Your task to perform on an android device: open a bookmark in the chrome app Image 0: 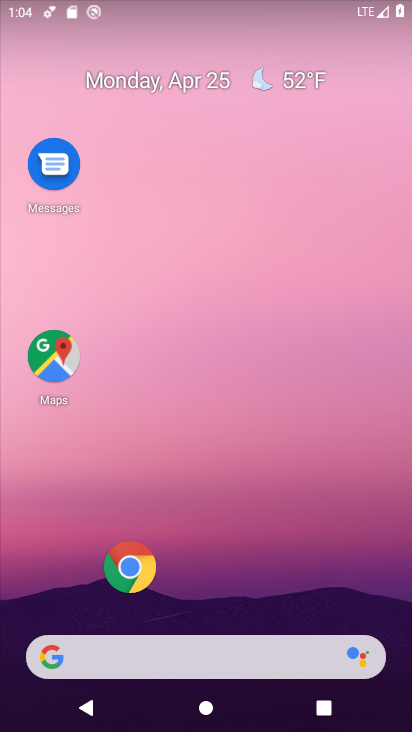
Step 0: drag from (187, 534) to (338, 15)
Your task to perform on an android device: open a bookmark in the chrome app Image 1: 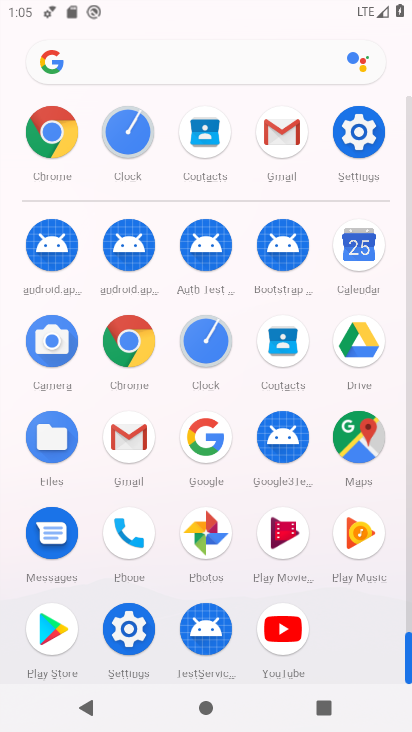
Step 1: click (50, 144)
Your task to perform on an android device: open a bookmark in the chrome app Image 2: 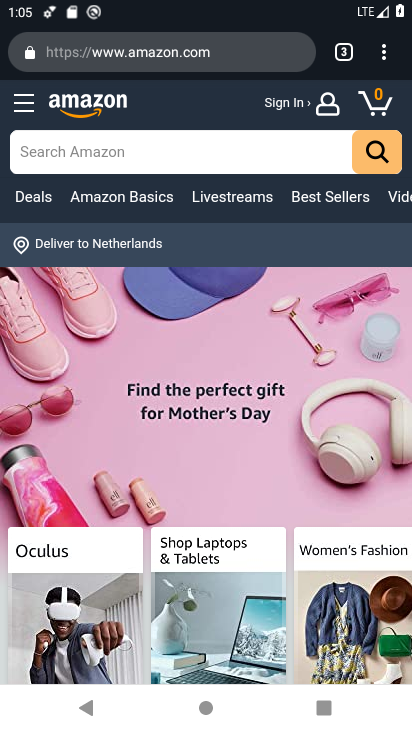
Step 2: click (388, 58)
Your task to perform on an android device: open a bookmark in the chrome app Image 3: 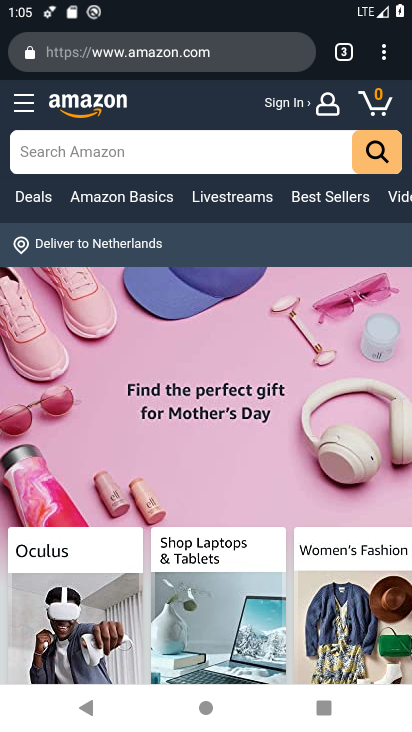
Step 3: click (388, 58)
Your task to perform on an android device: open a bookmark in the chrome app Image 4: 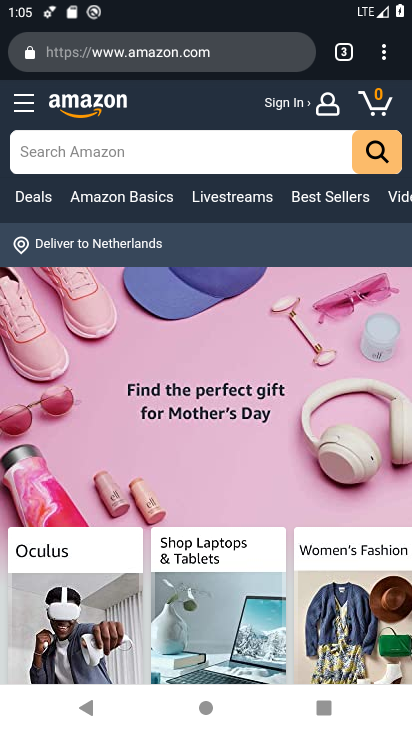
Step 4: click (388, 58)
Your task to perform on an android device: open a bookmark in the chrome app Image 5: 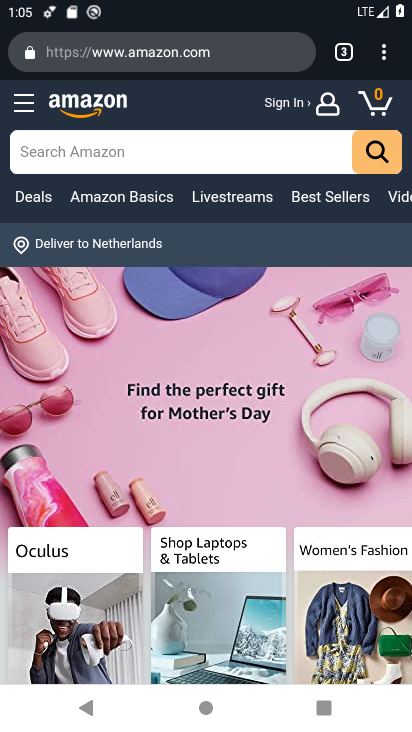
Step 5: click (388, 58)
Your task to perform on an android device: open a bookmark in the chrome app Image 6: 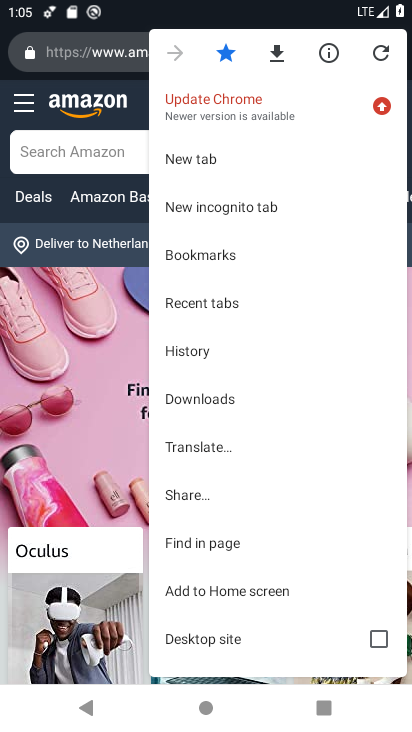
Step 6: click (227, 249)
Your task to perform on an android device: open a bookmark in the chrome app Image 7: 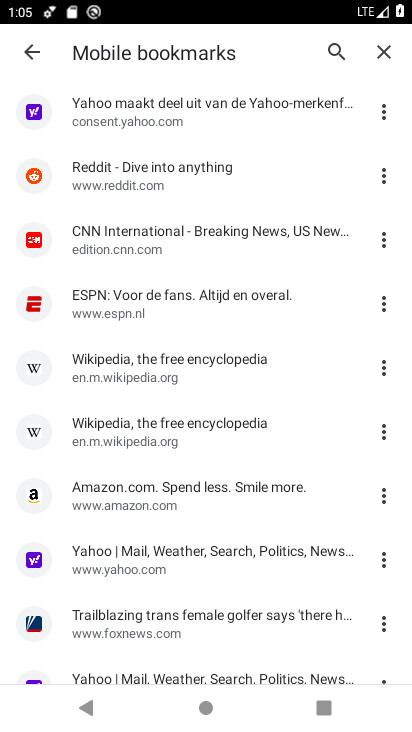
Step 7: click (130, 568)
Your task to perform on an android device: open a bookmark in the chrome app Image 8: 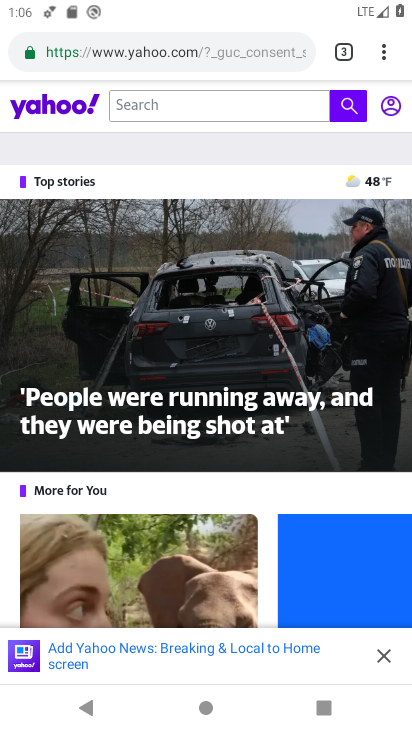
Step 8: task complete